Your task to perform on an android device: Open location settings Image 0: 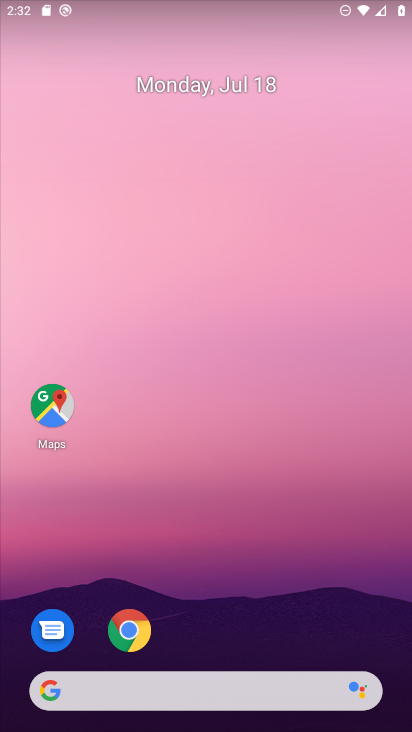
Step 0: press home button
Your task to perform on an android device: Open location settings Image 1: 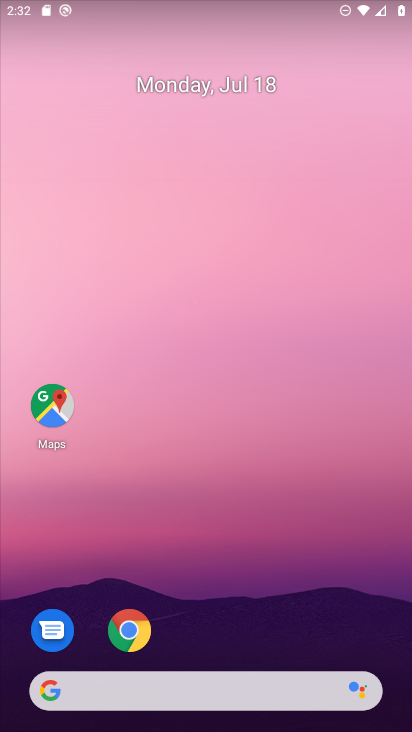
Step 1: drag from (244, 645) to (289, 70)
Your task to perform on an android device: Open location settings Image 2: 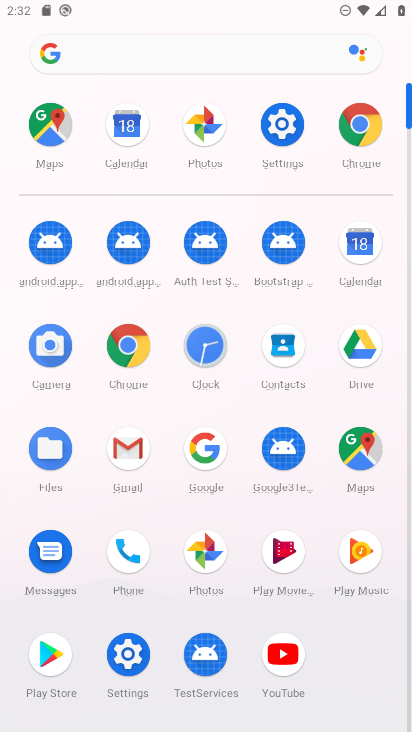
Step 2: click (288, 119)
Your task to perform on an android device: Open location settings Image 3: 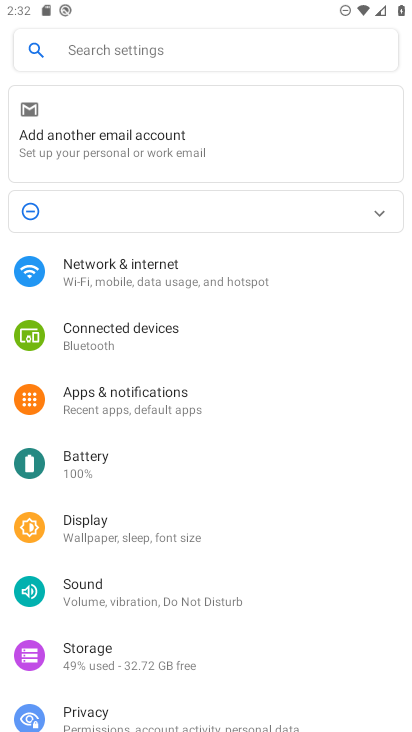
Step 3: drag from (240, 672) to (376, 154)
Your task to perform on an android device: Open location settings Image 4: 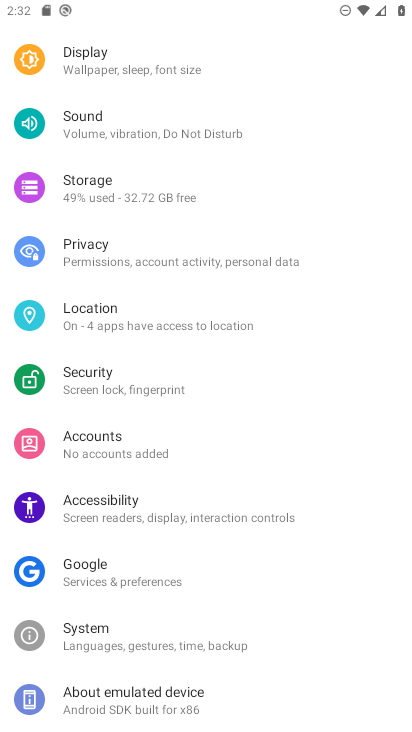
Step 4: drag from (301, 574) to (409, 70)
Your task to perform on an android device: Open location settings Image 5: 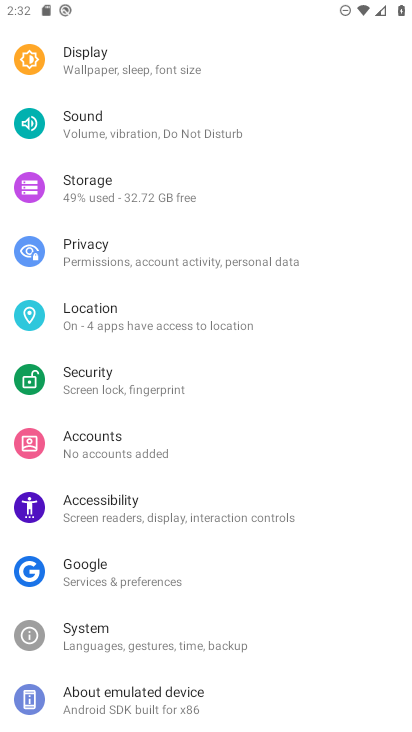
Step 5: click (80, 309)
Your task to perform on an android device: Open location settings Image 6: 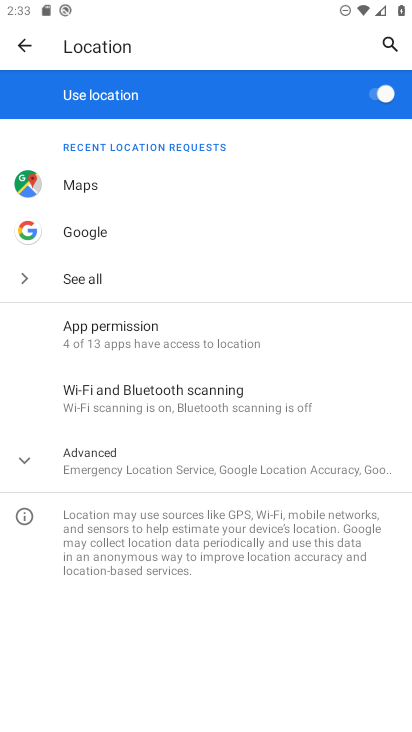
Step 6: task complete